Your task to perform on an android device: Google the capital of Canada Image 0: 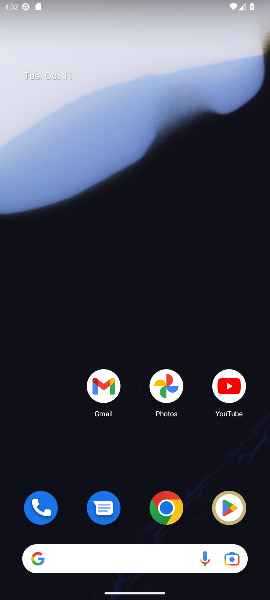
Step 0: click (47, 555)
Your task to perform on an android device: Google the capital of Canada Image 1: 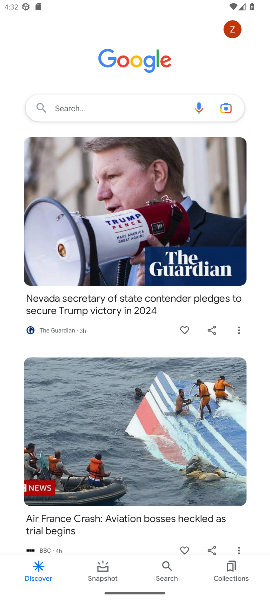
Step 1: click (72, 108)
Your task to perform on an android device: Google the capital of Canada Image 2: 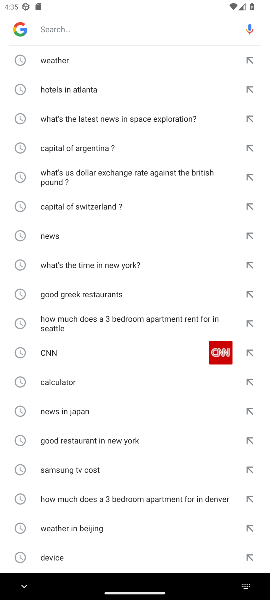
Step 2: type "capital of canada"
Your task to perform on an android device: Google the capital of Canada Image 3: 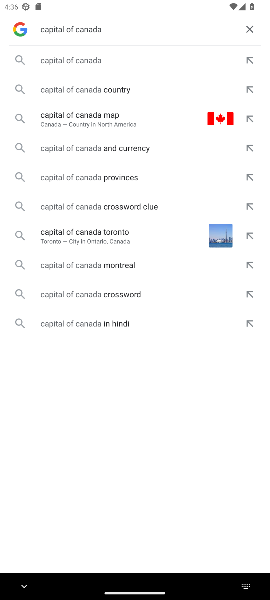
Step 3: click (95, 60)
Your task to perform on an android device: Google the capital of Canada Image 4: 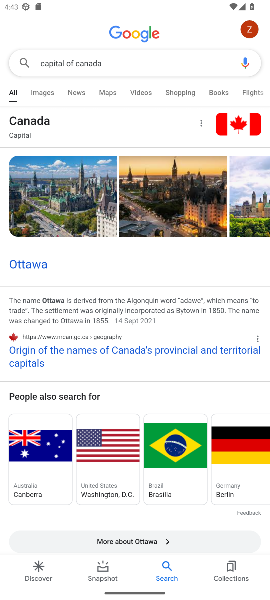
Step 4: task complete